Your task to perform on an android device: set default search engine in the chrome app Image 0: 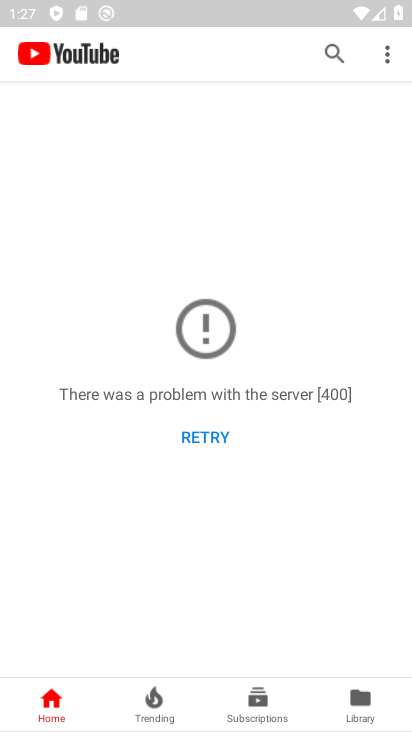
Step 0: press back button
Your task to perform on an android device: set default search engine in the chrome app Image 1: 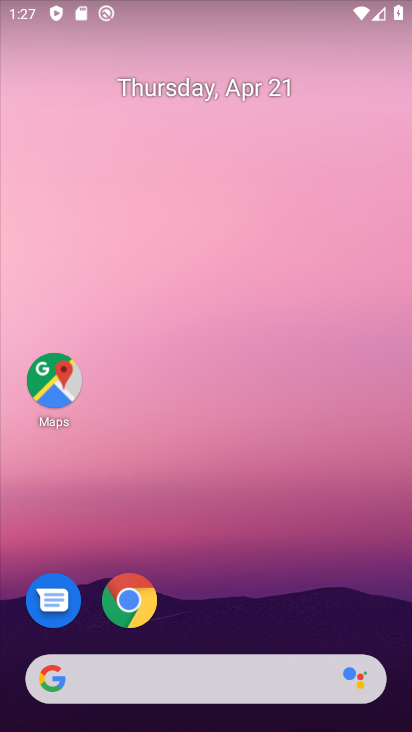
Step 1: click (131, 596)
Your task to perform on an android device: set default search engine in the chrome app Image 2: 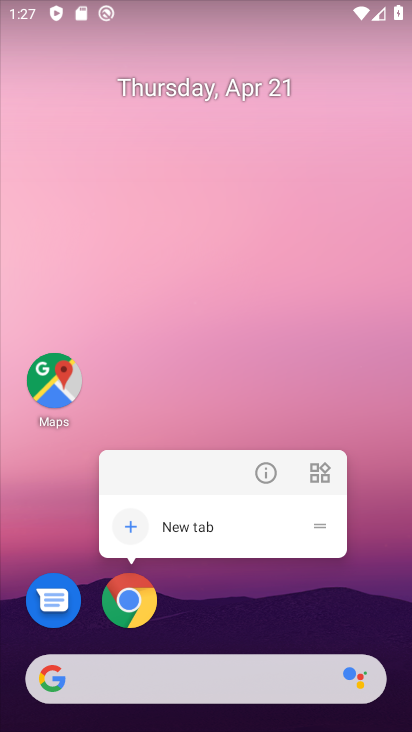
Step 2: click (135, 600)
Your task to perform on an android device: set default search engine in the chrome app Image 3: 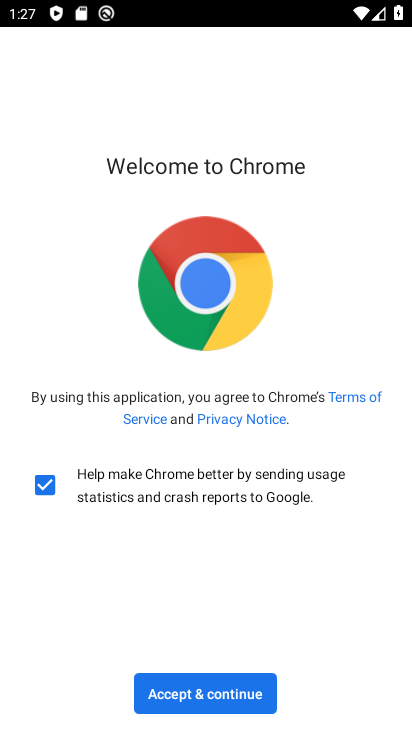
Step 3: click (182, 695)
Your task to perform on an android device: set default search engine in the chrome app Image 4: 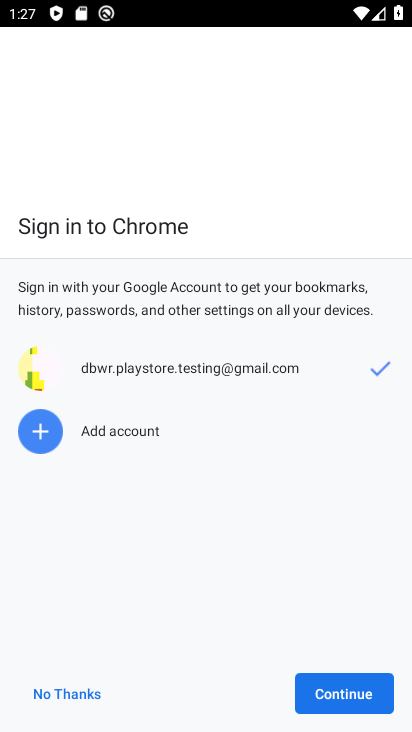
Step 4: click (349, 691)
Your task to perform on an android device: set default search engine in the chrome app Image 5: 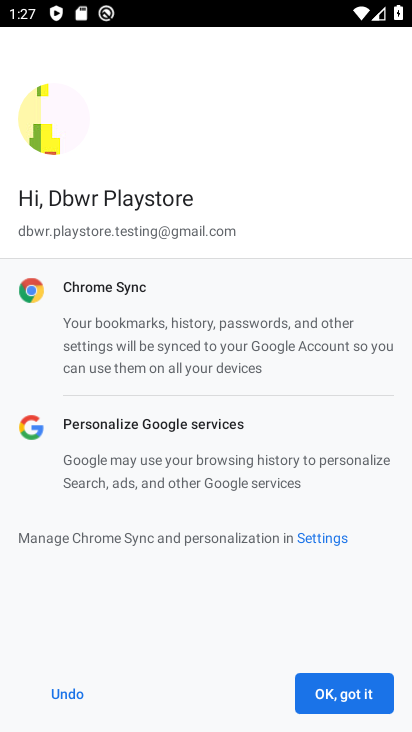
Step 5: click (348, 689)
Your task to perform on an android device: set default search engine in the chrome app Image 6: 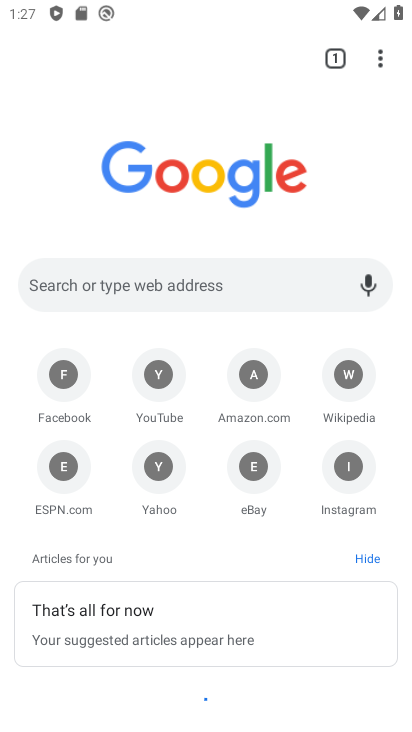
Step 6: drag from (380, 59) to (201, 495)
Your task to perform on an android device: set default search engine in the chrome app Image 7: 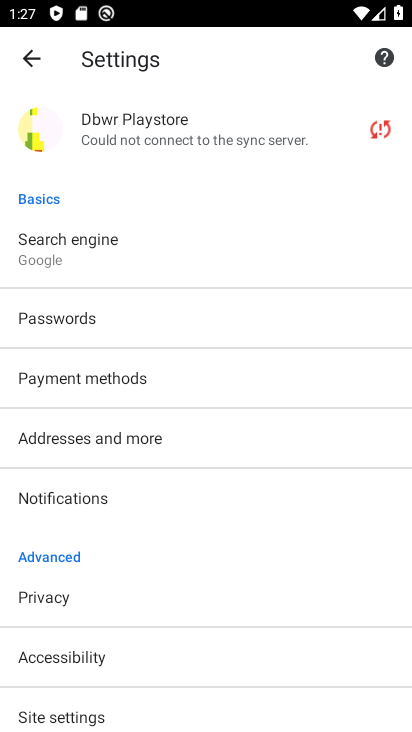
Step 7: click (62, 264)
Your task to perform on an android device: set default search engine in the chrome app Image 8: 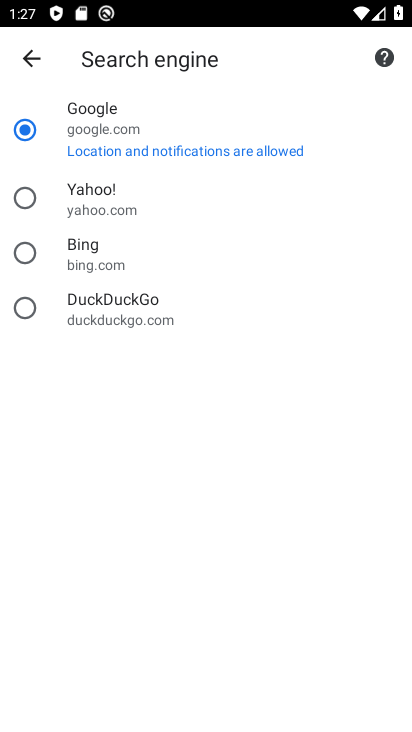
Step 8: click (75, 199)
Your task to perform on an android device: set default search engine in the chrome app Image 9: 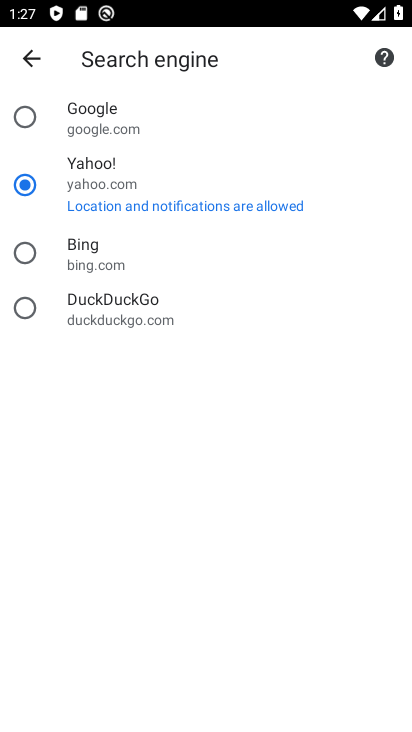
Step 9: task complete